Your task to perform on an android device: turn pop-ups off in chrome Image 0: 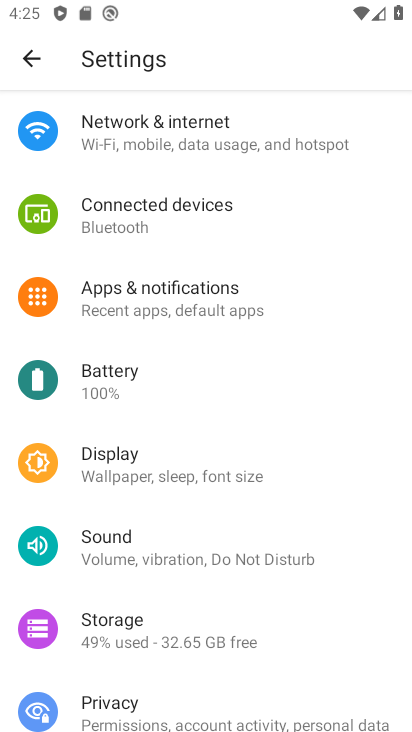
Step 0: press home button
Your task to perform on an android device: turn pop-ups off in chrome Image 1: 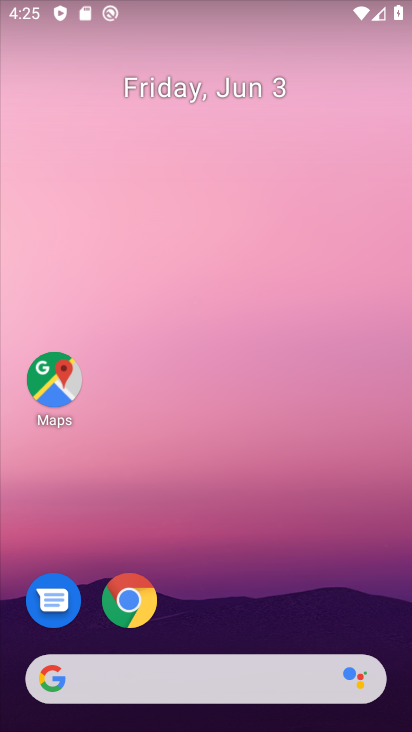
Step 1: click (134, 592)
Your task to perform on an android device: turn pop-ups off in chrome Image 2: 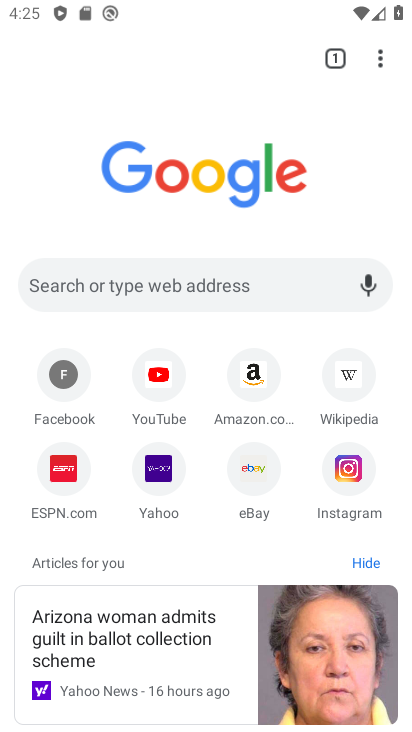
Step 2: click (381, 61)
Your task to perform on an android device: turn pop-ups off in chrome Image 3: 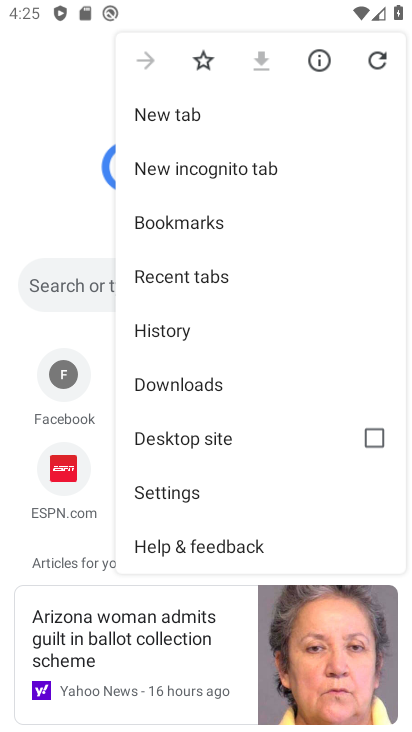
Step 3: click (191, 498)
Your task to perform on an android device: turn pop-ups off in chrome Image 4: 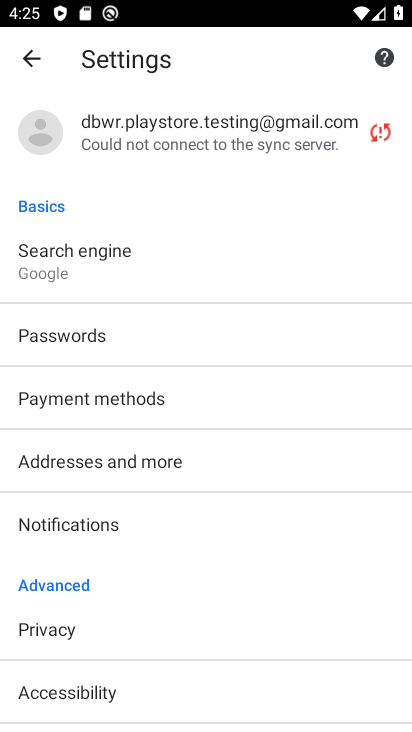
Step 4: drag from (119, 590) to (131, 355)
Your task to perform on an android device: turn pop-ups off in chrome Image 5: 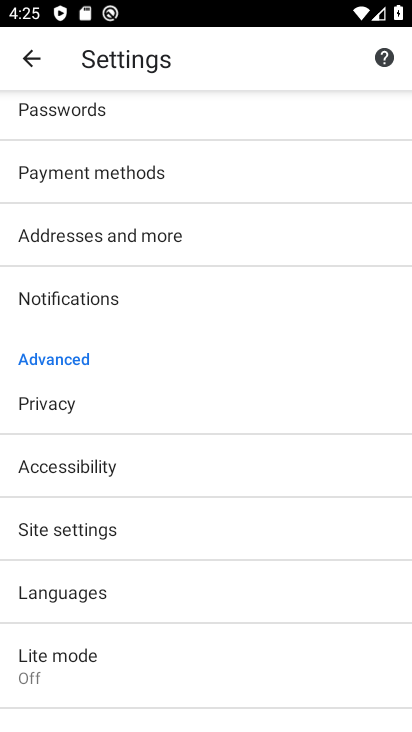
Step 5: click (101, 529)
Your task to perform on an android device: turn pop-ups off in chrome Image 6: 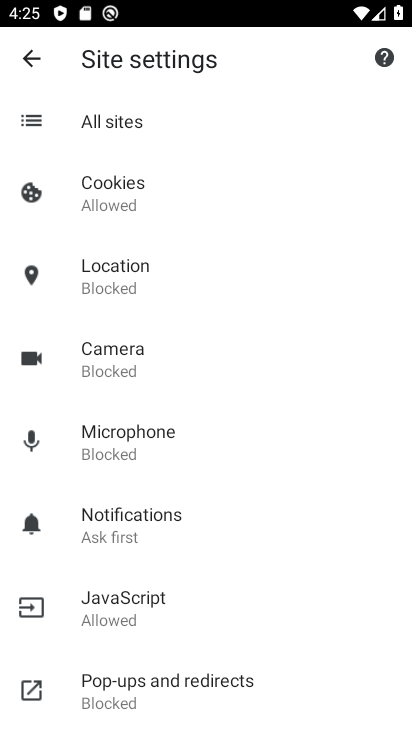
Step 6: click (134, 693)
Your task to perform on an android device: turn pop-ups off in chrome Image 7: 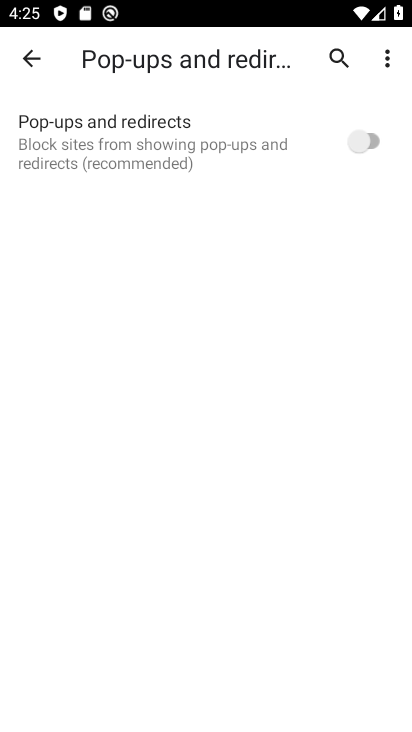
Step 7: task complete